Your task to perform on an android device: Go to calendar. Show me events next week Image 0: 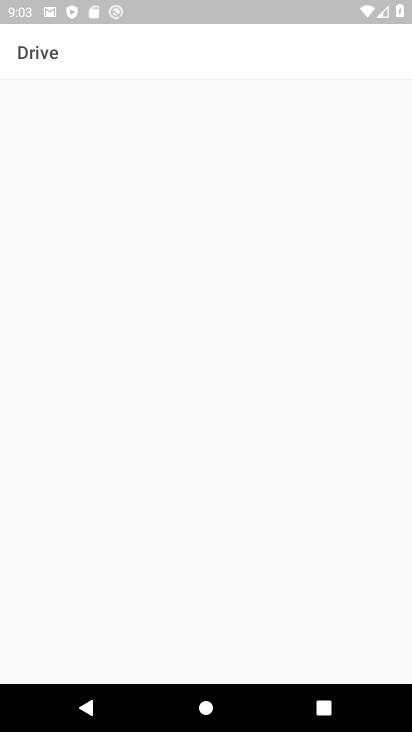
Step 0: press home button
Your task to perform on an android device: Go to calendar. Show me events next week Image 1: 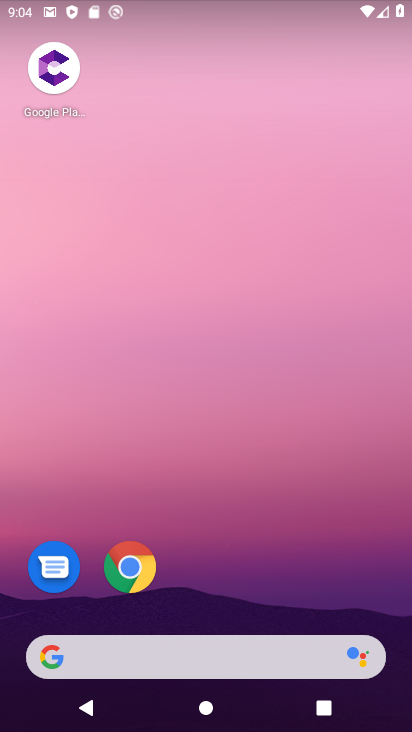
Step 1: drag from (341, 593) to (107, 62)
Your task to perform on an android device: Go to calendar. Show me events next week Image 2: 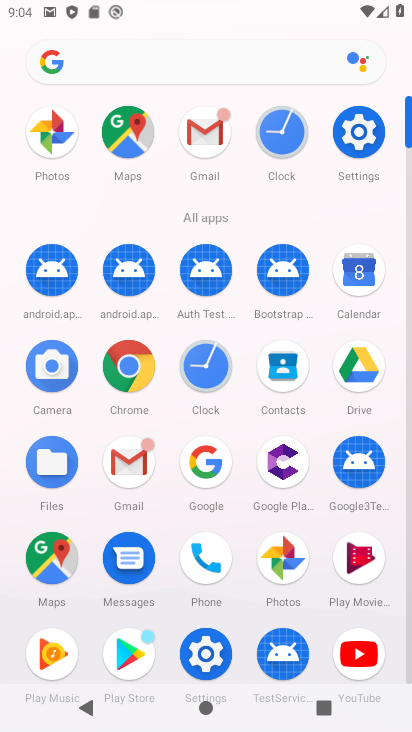
Step 2: click (369, 270)
Your task to perform on an android device: Go to calendar. Show me events next week Image 3: 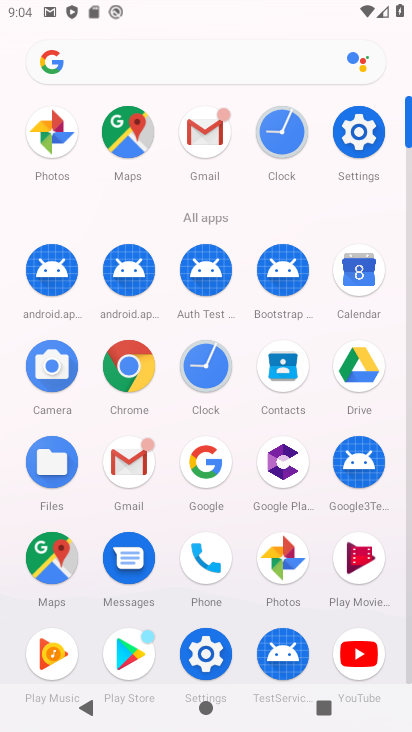
Step 3: click (369, 271)
Your task to perform on an android device: Go to calendar. Show me events next week Image 4: 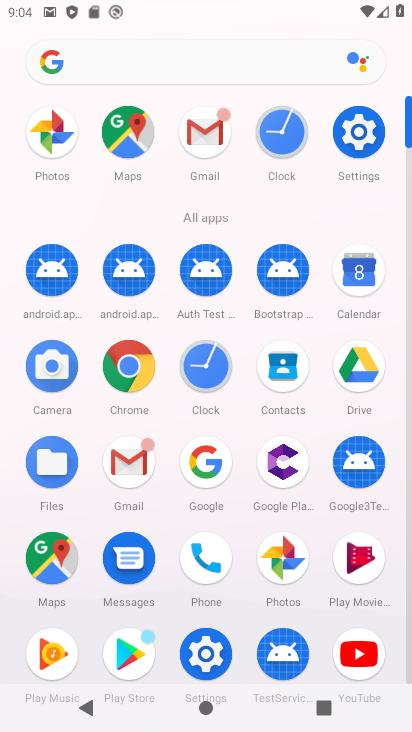
Step 4: click (369, 271)
Your task to perform on an android device: Go to calendar. Show me events next week Image 5: 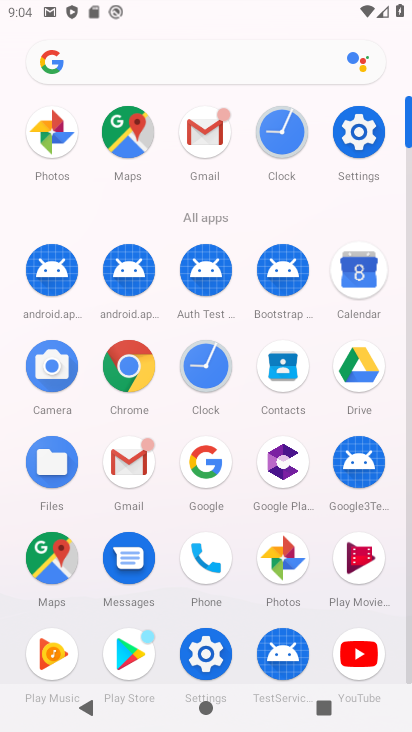
Step 5: click (369, 272)
Your task to perform on an android device: Go to calendar. Show me events next week Image 6: 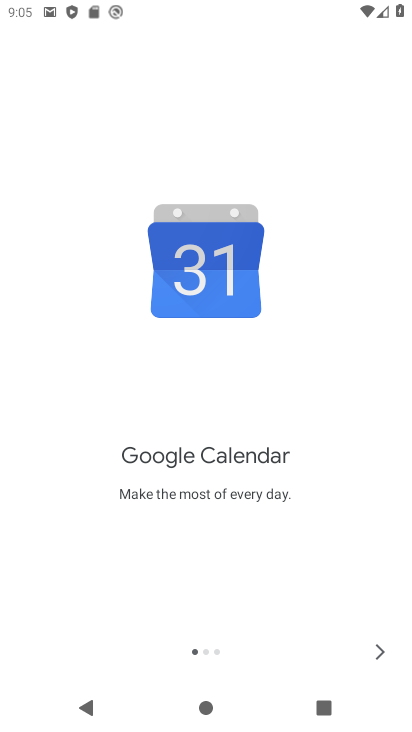
Step 6: click (376, 651)
Your task to perform on an android device: Go to calendar. Show me events next week Image 7: 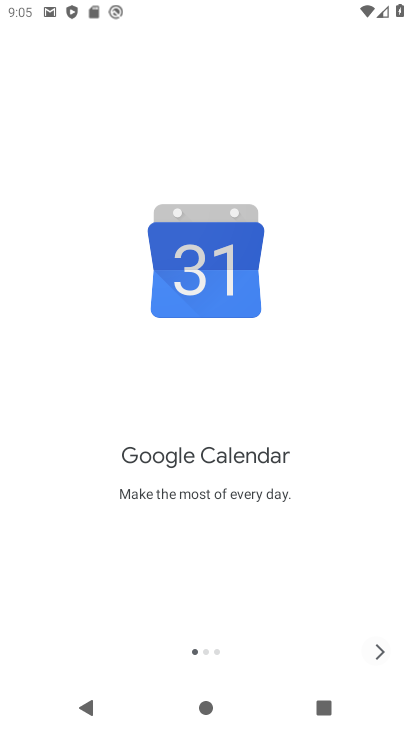
Step 7: click (375, 650)
Your task to perform on an android device: Go to calendar. Show me events next week Image 8: 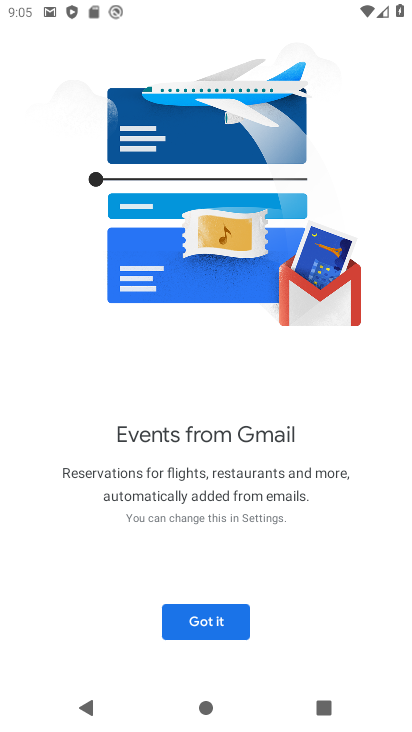
Step 8: click (215, 614)
Your task to perform on an android device: Go to calendar. Show me events next week Image 9: 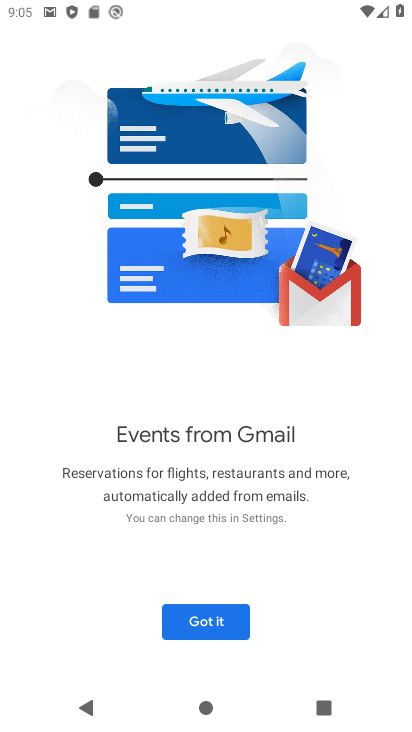
Step 9: click (209, 619)
Your task to perform on an android device: Go to calendar. Show me events next week Image 10: 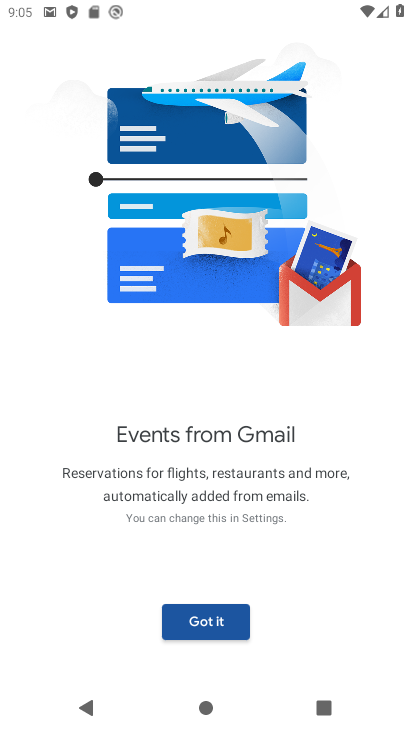
Step 10: click (209, 619)
Your task to perform on an android device: Go to calendar. Show me events next week Image 11: 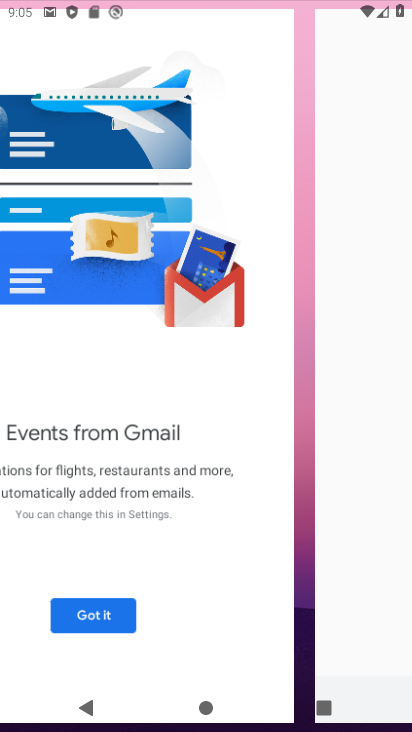
Step 11: click (209, 619)
Your task to perform on an android device: Go to calendar. Show me events next week Image 12: 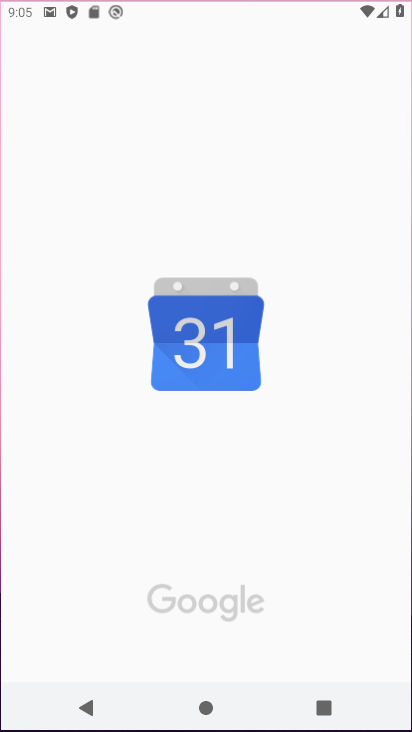
Step 12: click (209, 619)
Your task to perform on an android device: Go to calendar. Show me events next week Image 13: 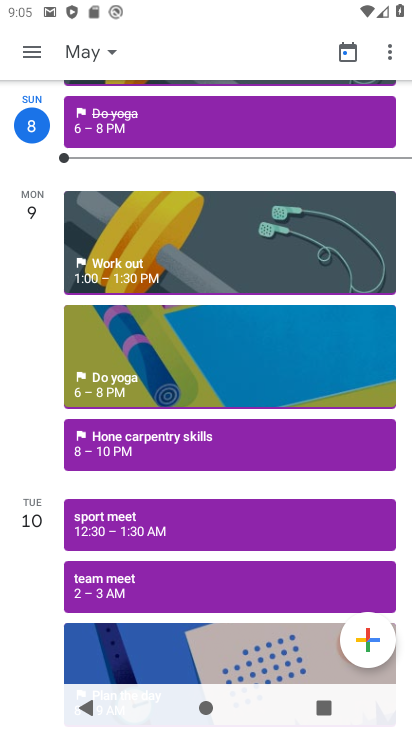
Step 13: drag from (165, 415) to (100, 107)
Your task to perform on an android device: Go to calendar. Show me events next week Image 14: 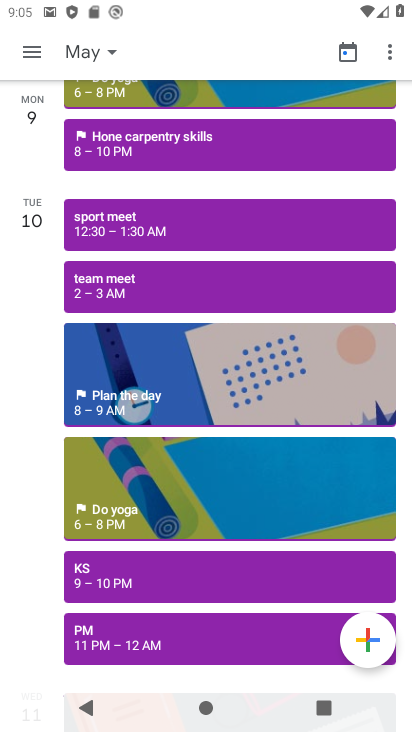
Step 14: drag from (131, 486) to (124, 210)
Your task to perform on an android device: Go to calendar. Show me events next week Image 15: 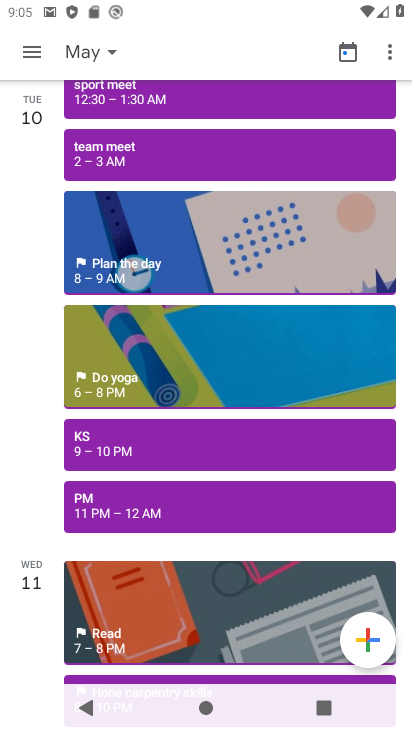
Step 15: drag from (207, 341) to (165, 215)
Your task to perform on an android device: Go to calendar. Show me events next week Image 16: 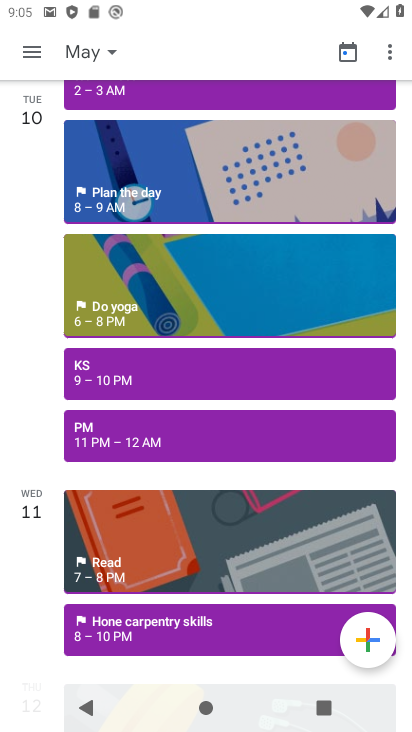
Step 16: drag from (205, 399) to (168, 136)
Your task to perform on an android device: Go to calendar. Show me events next week Image 17: 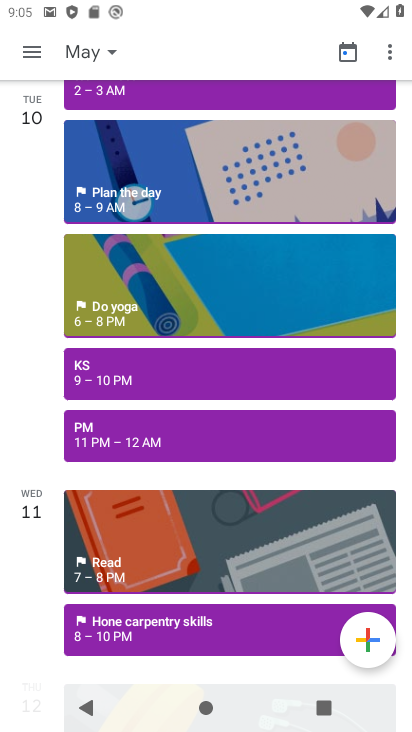
Step 17: drag from (142, 359) to (109, 133)
Your task to perform on an android device: Go to calendar. Show me events next week Image 18: 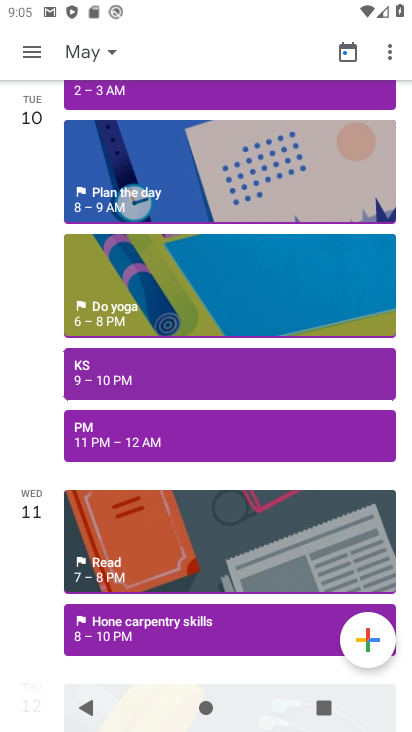
Step 18: drag from (207, 481) to (190, 158)
Your task to perform on an android device: Go to calendar. Show me events next week Image 19: 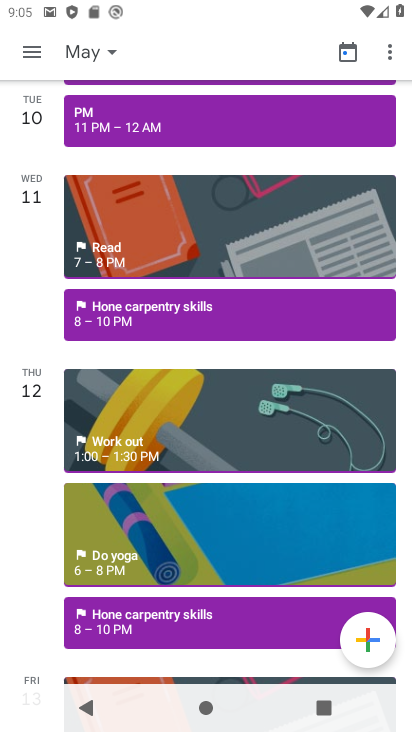
Step 19: drag from (191, 437) to (89, 50)
Your task to perform on an android device: Go to calendar. Show me events next week Image 20: 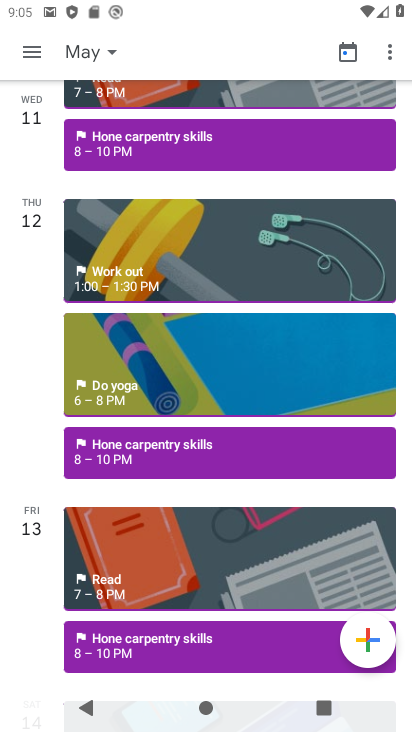
Step 20: drag from (204, 318) to (197, 72)
Your task to perform on an android device: Go to calendar. Show me events next week Image 21: 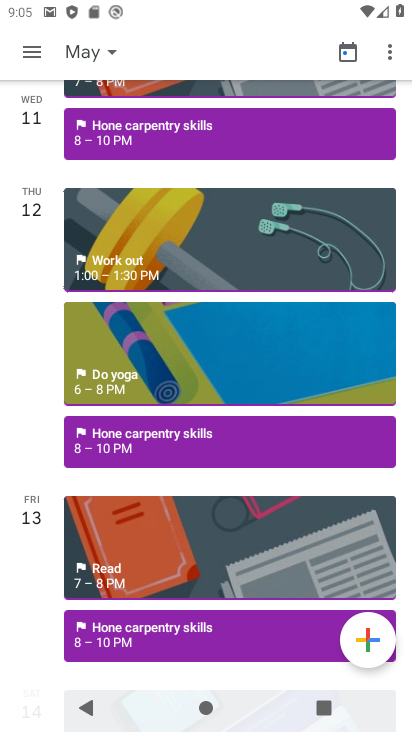
Step 21: drag from (208, 503) to (216, 11)
Your task to perform on an android device: Go to calendar. Show me events next week Image 22: 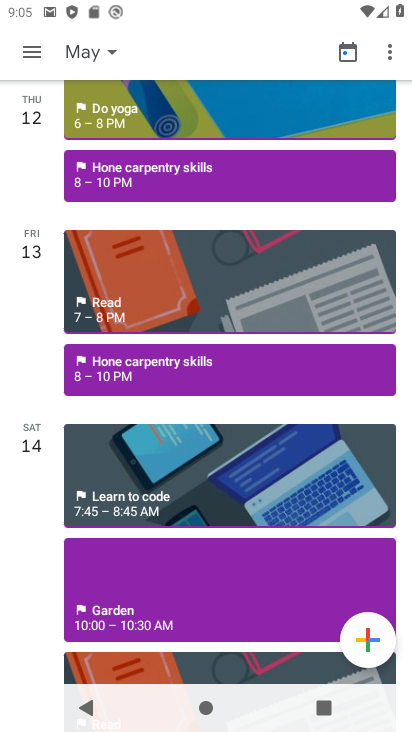
Step 22: drag from (116, 518) to (75, 63)
Your task to perform on an android device: Go to calendar. Show me events next week Image 23: 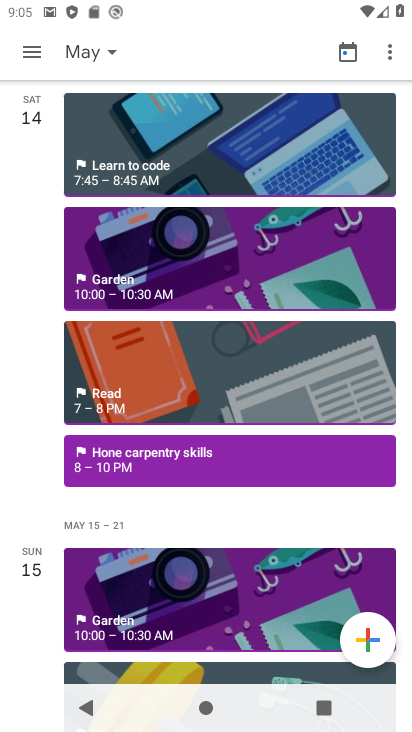
Step 23: drag from (84, 259) to (67, 119)
Your task to perform on an android device: Go to calendar. Show me events next week Image 24: 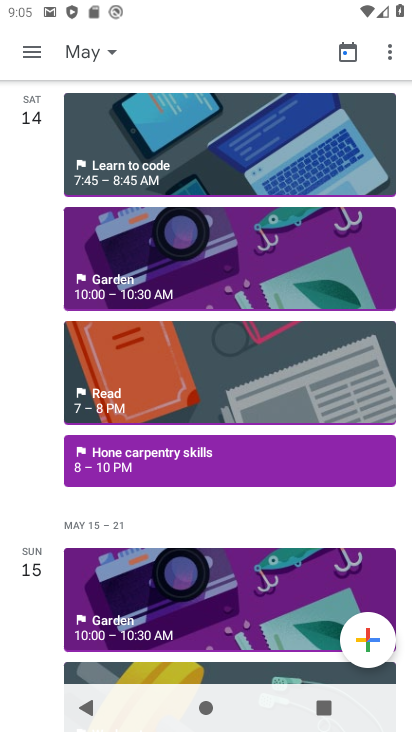
Step 24: drag from (141, 525) to (213, 62)
Your task to perform on an android device: Go to calendar. Show me events next week Image 25: 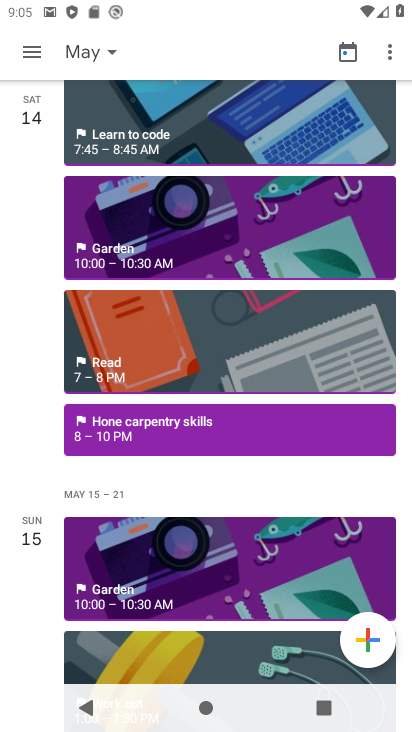
Step 25: drag from (174, 254) to (183, 74)
Your task to perform on an android device: Go to calendar. Show me events next week Image 26: 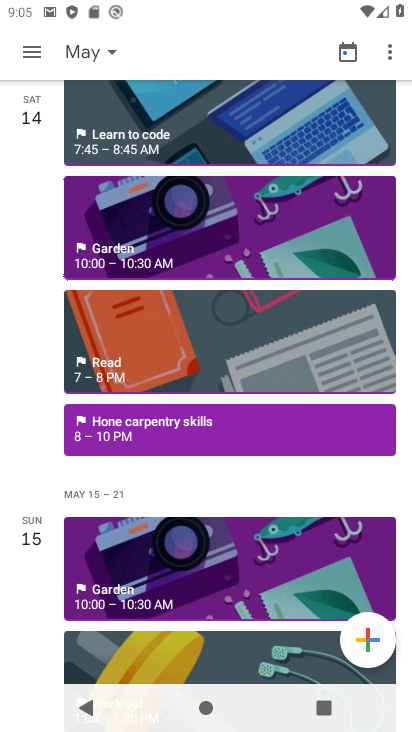
Step 26: drag from (121, 488) to (188, 13)
Your task to perform on an android device: Go to calendar. Show me events next week Image 27: 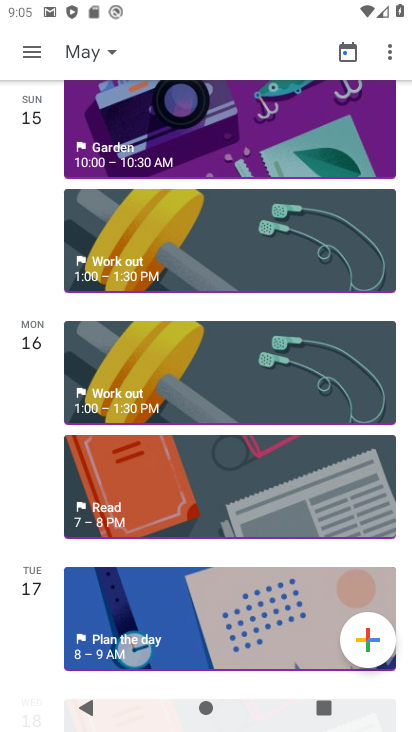
Step 27: click (132, 67)
Your task to perform on an android device: Go to calendar. Show me events next week Image 28: 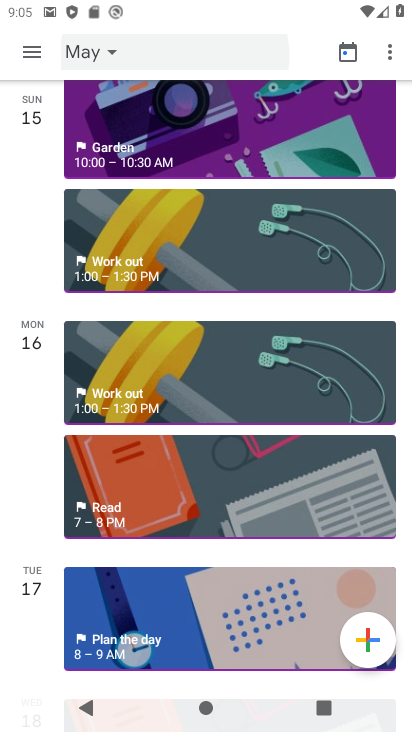
Step 28: drag from (136, 327) to (134, 193)
Your task to perform on an android device: Go to calendar. Show me events next week Image 29: 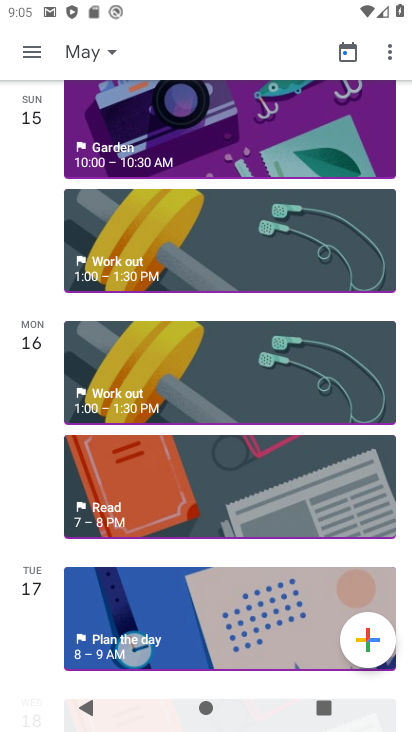
Step 29: click (115, 47)
Your task to perform on an android device: Go to calendar. Show me events next week Image 30: 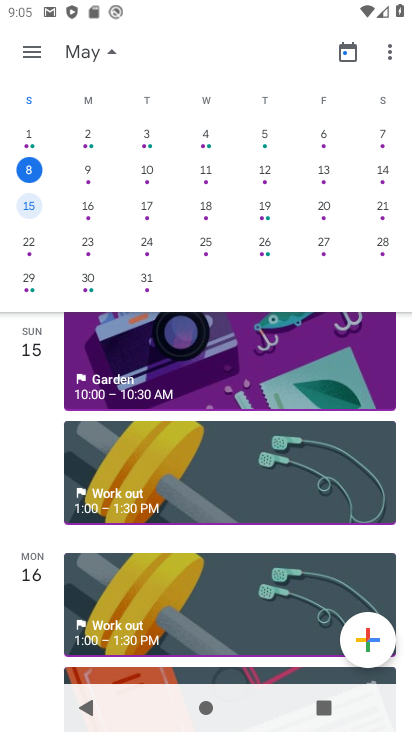
Step 30: click (88, 241)
Your task to perform on an android device: Go to calendar. Show me events next week Image 31: 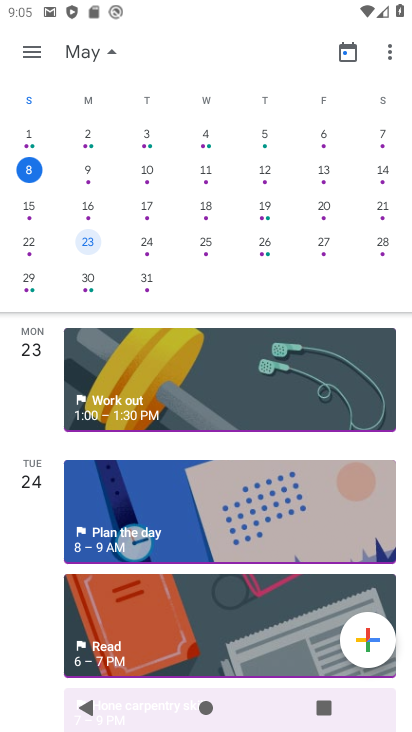
Step 31: click (88, 241)
Your task to perform on an android device: Go to calendar. Show me events next week Image 32: 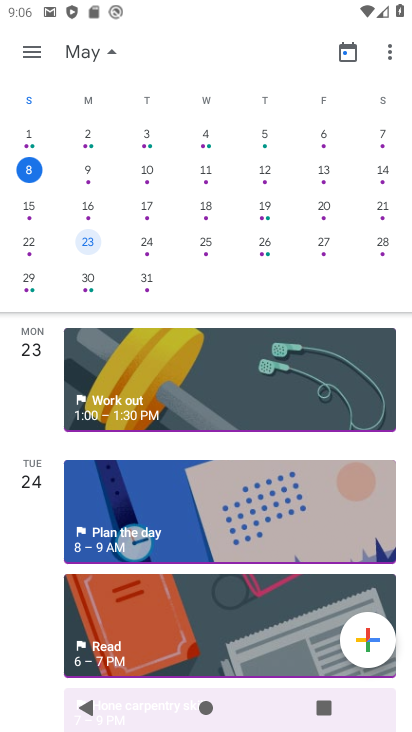
Step 32: click (85, 246)
Your task to perform on an android device: Go to calendar. Show me events next week Image 33: 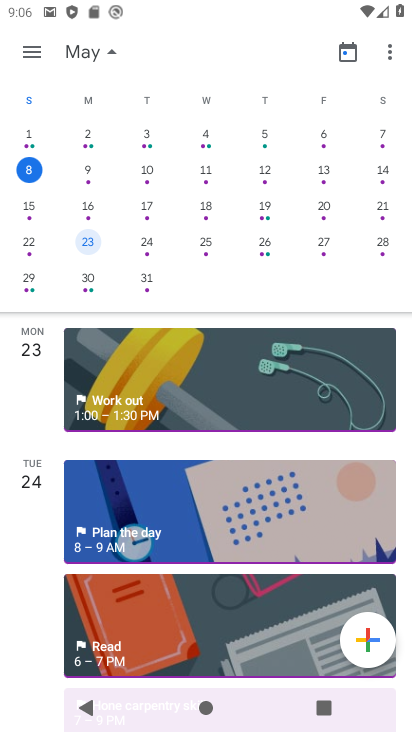
Step 33: task complete